Your task to perform on an android device: turn vacation reply on in the gmail app Image 0: 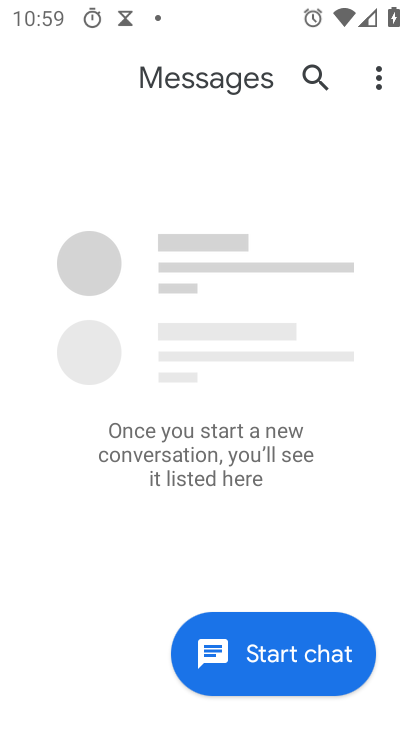
Step 0: press back button
Your task to perform on an android device: turn vacation reply on in the gmail app Image 1: 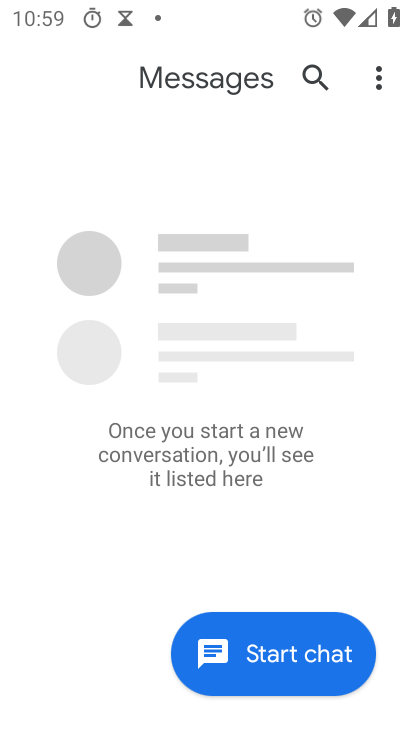
Step 1: press back button
Your task to perform on an android device: turn vacation reply on in the gmail app Image 2: 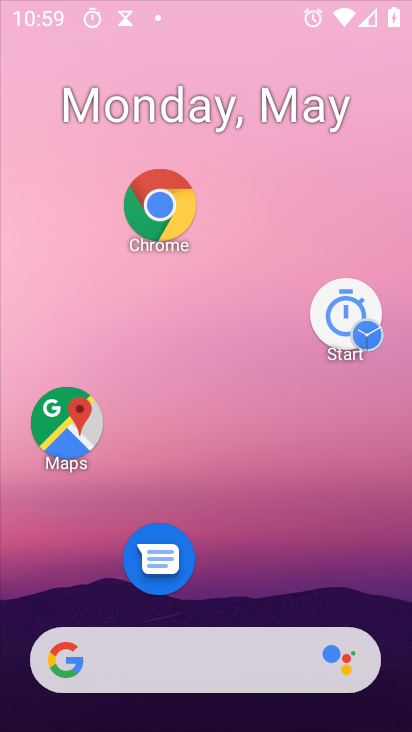
Step 2: press back button
Your task to perform on an android device: turn vacation reply on in the gmail app Image 3: 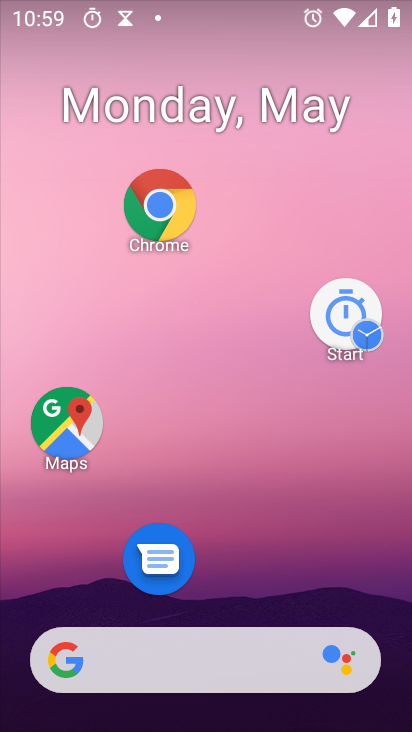
Step 3: drag from (218, 677) to (118, 171)
Your task to perform on an android device: turn vacation reply on in the gmail app Image 4: 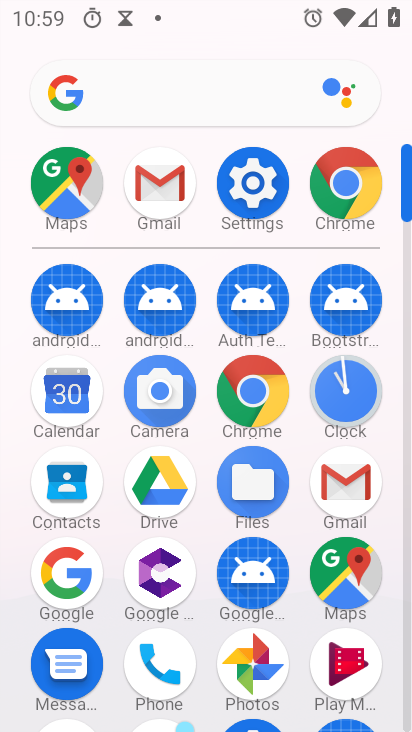
Step 4: click (166, 189)
Your task to perform on an android device: turn vacation reply on in the gmail app Image 5: 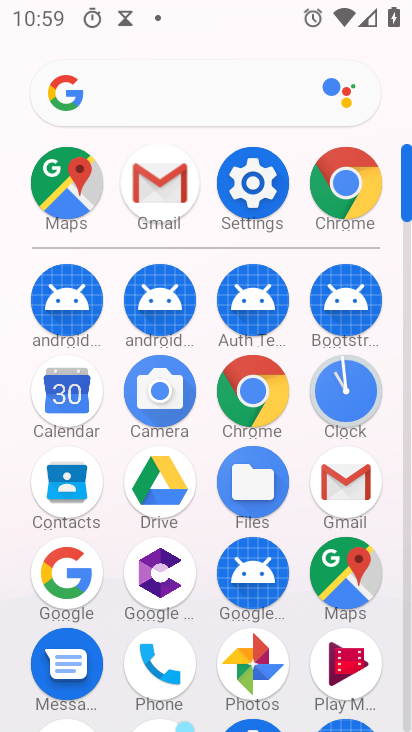
Step 5: click (166, 189)
Your task to perform on an android device: turn vacation reply on in the gmail app Image 6: 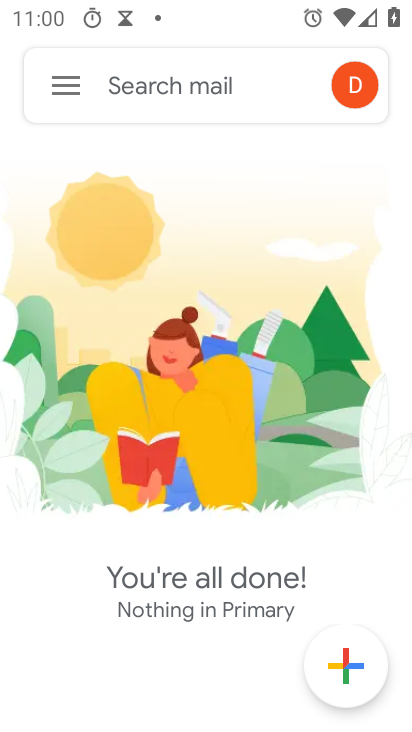
Step 6: press back button
Your task to perform on an android device: turn vacation reply on in the gmail app Image 7: 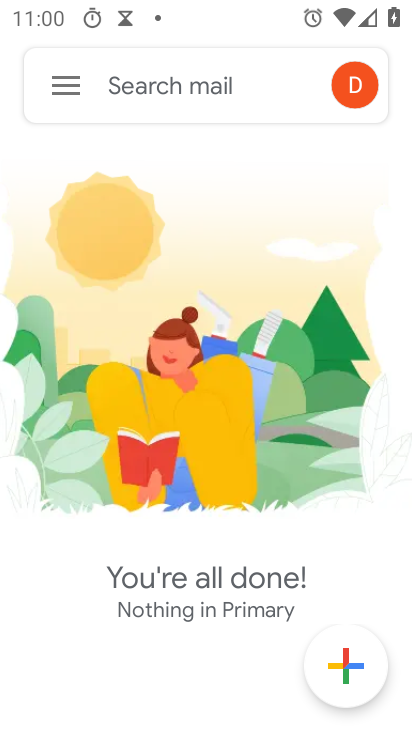
Step 7: press back button
Your task to perform on an android device: turn vacation reply on in the gmail app Image 8: 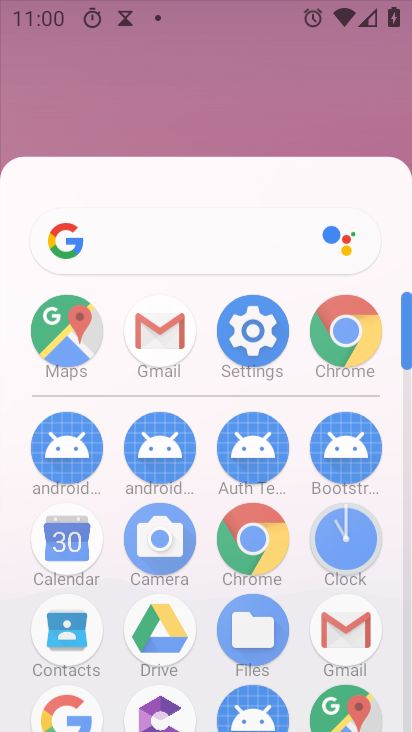
Step 8: press back button
Your task to perform on an android device: turn vacation reply on in the gmail app Image 9: 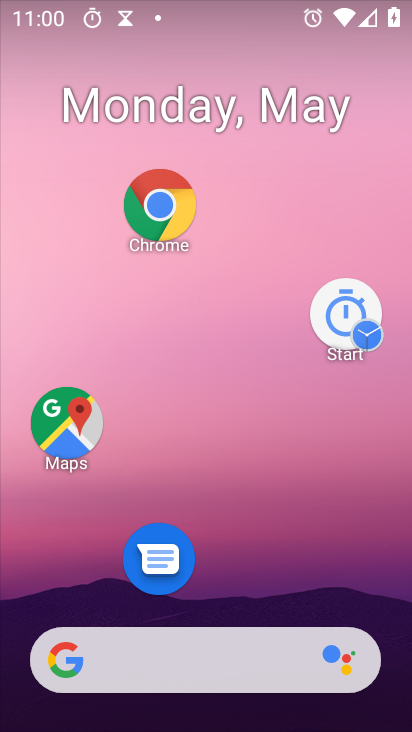
Step 9: drag from (251, 647) to (166, 13)
Your task to perform on an android device: turn vacation reply on in the gmail app Image 10: 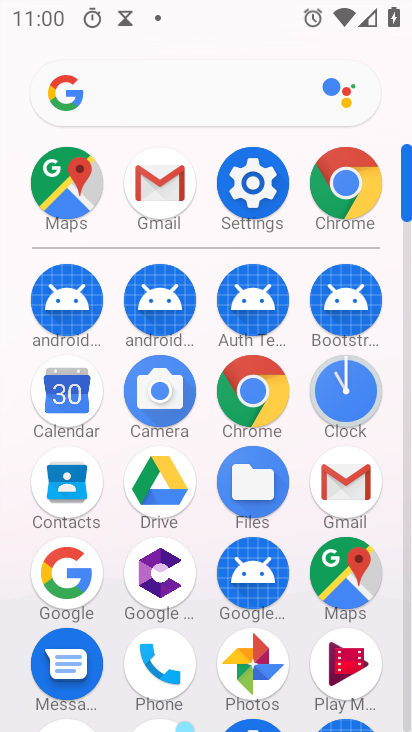
Step 10: click (340, 480)
Your task to perform on an android device: turn vacation reply on in the gmail app Image 11: 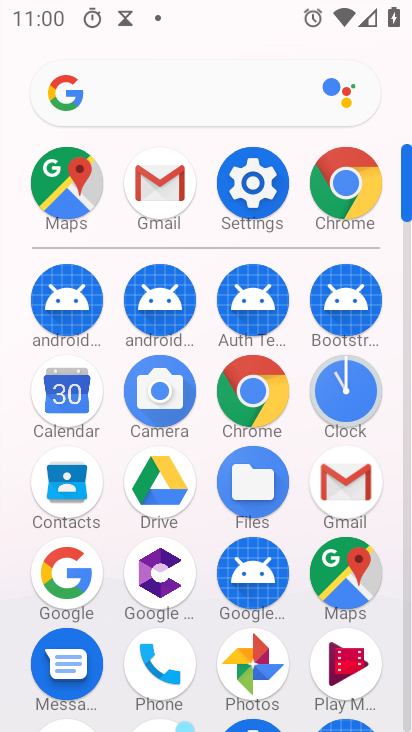
Step 11: click (343, 480)
Your task to perform on an android device: turn vacation reply on in the gmail app Image 12: 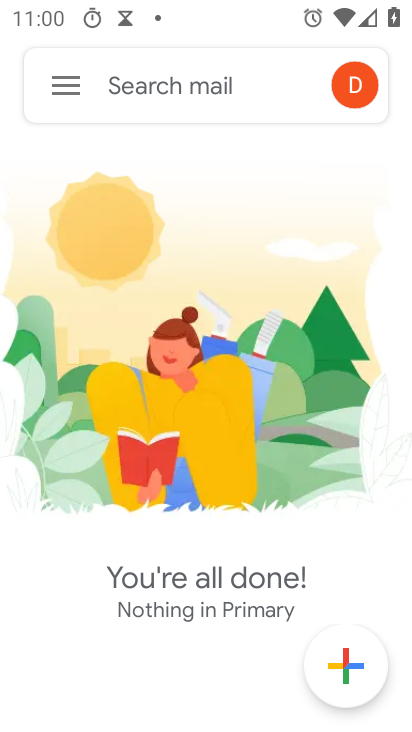
Step 12: click (76, 89)
Your task to perform on an android device: turn vacation reply on in the gmail app Image 13: 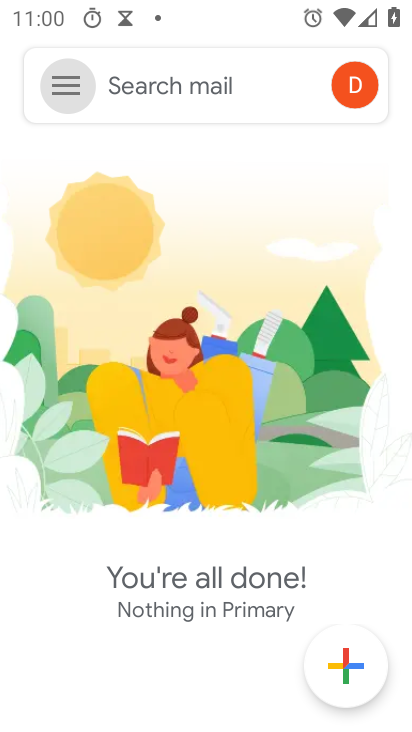
Step 13: click (70, 94)
Your task to perform on an android device: turn vacation reply on in the gmail app Image 14: 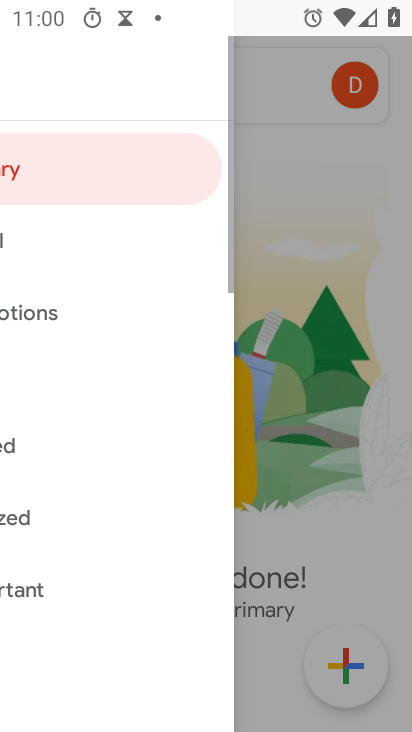
Step 14: click (70, 94)
Your task to perform on an android device: turn vacation reply on in the gmail app Image 15: 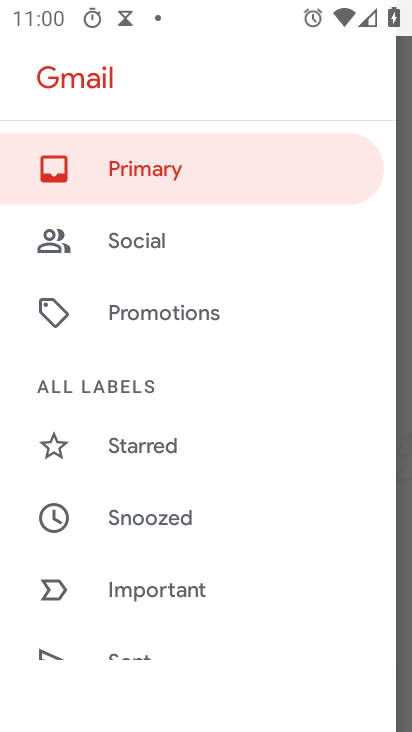
Step 15: drag from (204, 442) to (177, 75)
Your task to perform on an android device: turn vacation reply on in the gmail app Image 16: 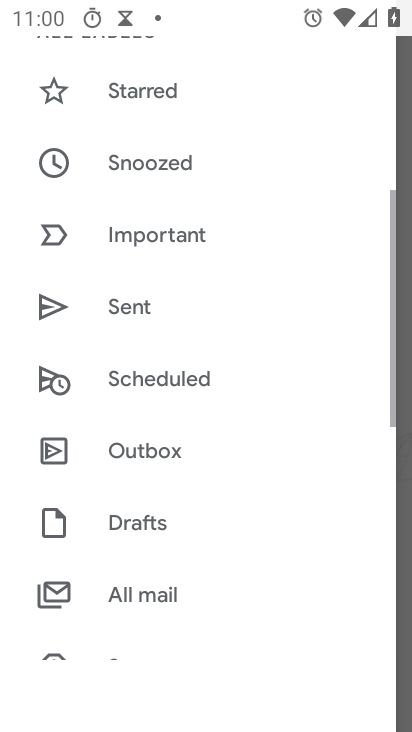
Step 16: drag from (222, 422) to (223, 176)
Your task to perform on an android device: turn vacation reply on in the gmail app Image 17: 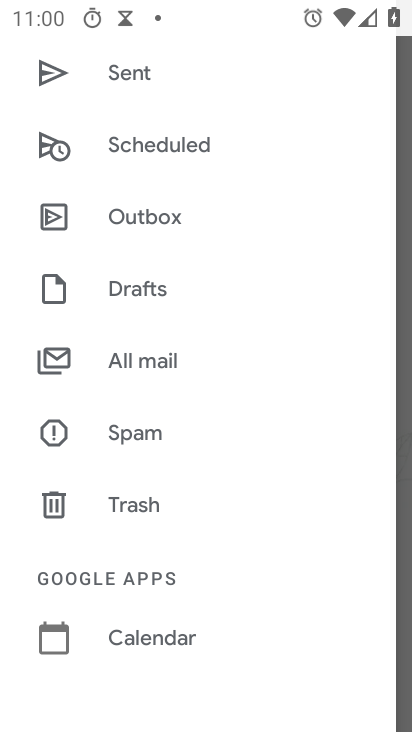
Step 17: drag from (163, 497) to (129, 243)
Your task to perform on an android device: turn vacation reply on in the gmail app Image 18: 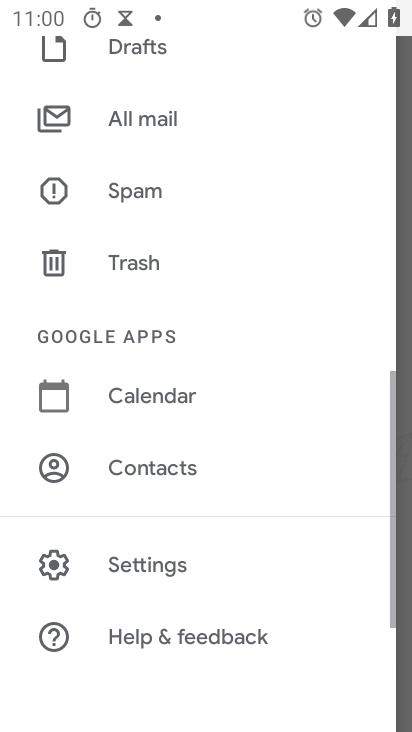
Step 18: drag from (185, 421) to (193, 87)
Your task to perform on an android device: turn vacation reply on in the gmail app Image 19: 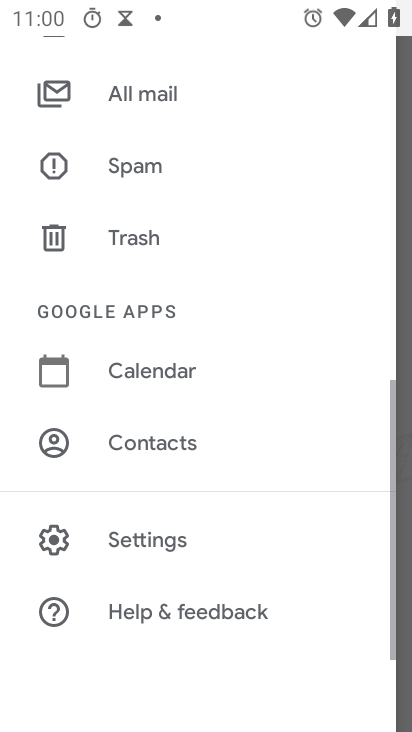
Step 19: drag from (223, 461) to (223, 171)
Your task to perform on an android device: turn vacation reply on in the gmail app Image 20: 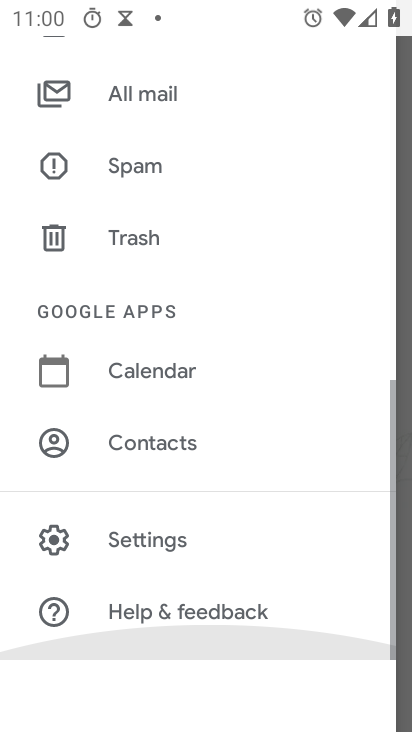
Step 20: drag from (190, 403) to (220, 124)
Your task to perform on an android device: turn vacation reply on in the gmail app Image 21: 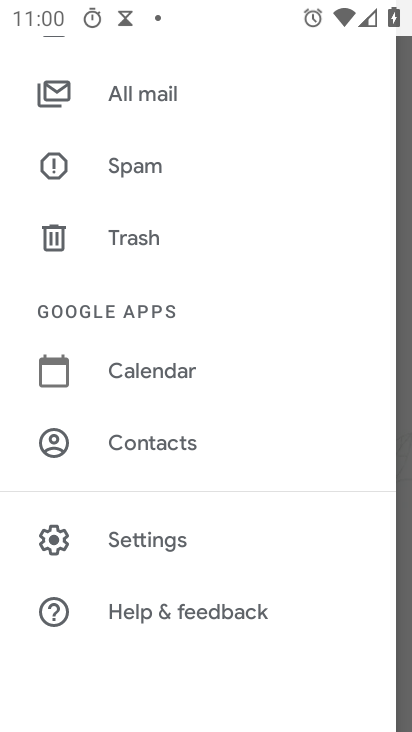
Step 21: click (150, 526)
Your task to perform on an android device: turn vacation reply on in the gmail app Image 22: 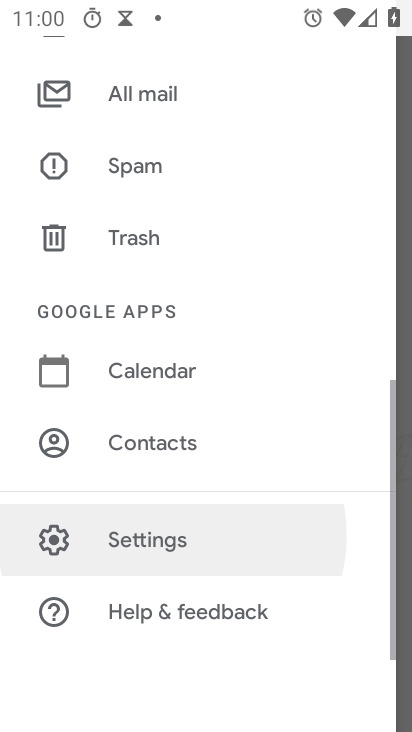
Step 22: click (149, 530)
Your task to perform on an android device: turn vacation reply on in the gmail app Image 23: 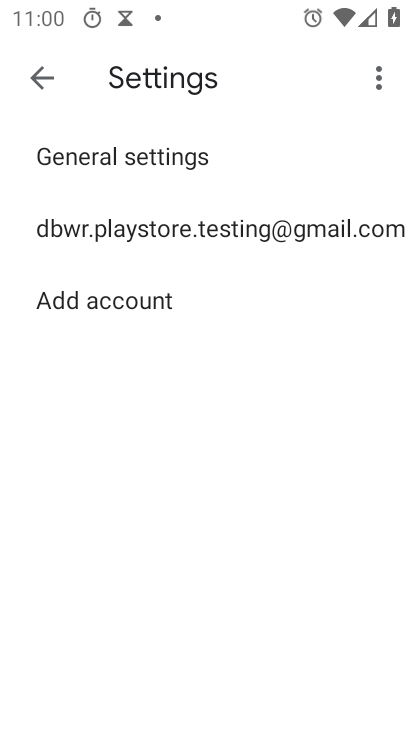
Step 23: click (140, 217)
Your task to perform on an android device: turn vacation reply on in the gmail app Image 24: 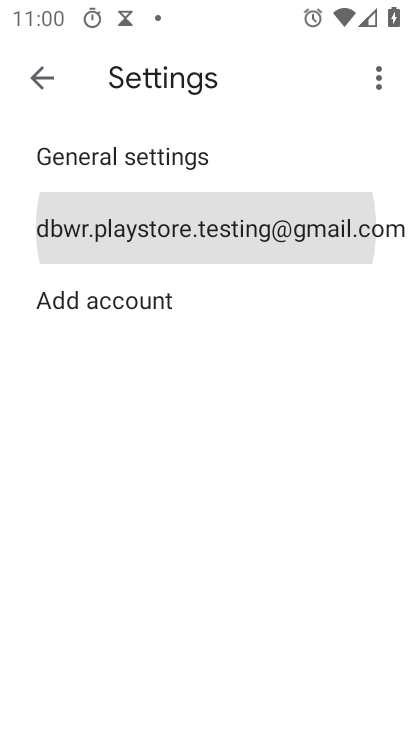
Step 24: click (140, 217)
Your task to perform on an android device: turn vacation reply on in the gmail app Image 25: 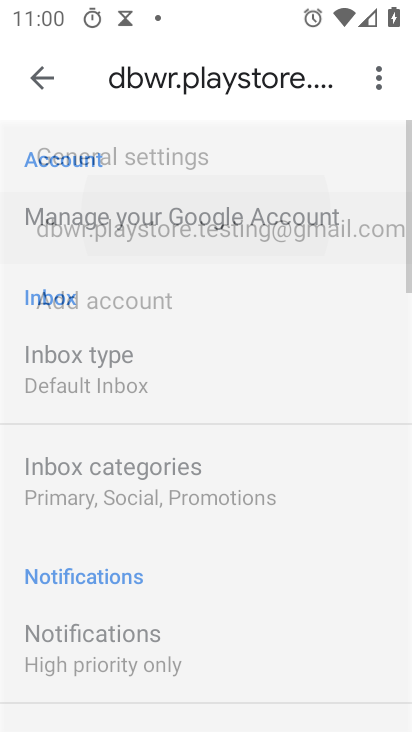
Step 25: click (141, 219)
Your task to perform on an android device: turn vacation reply on in the gmail app Image 26: 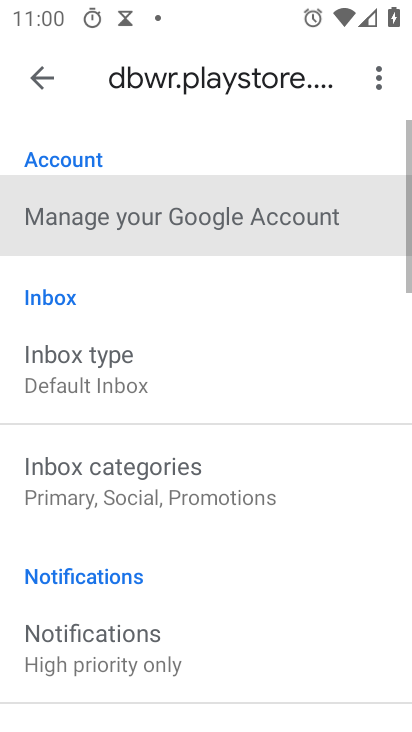
Step 26: click (142, 219)
Your task to perform on an android device: turn vacation reply on in the gmail app Image 27: 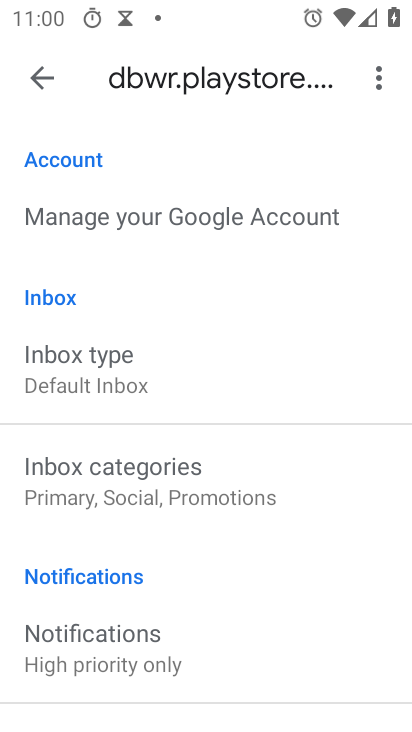
Step 27: drag from (102, 600) to (108, 228)
Your task to perform on an android device: turn vacation reply on in the gmail app Image 28: 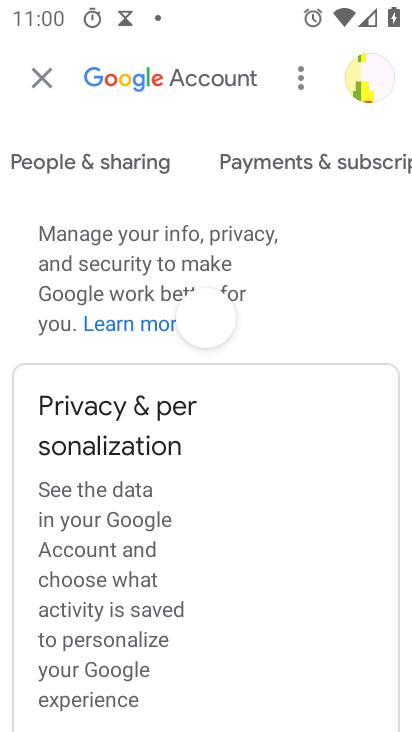
Step 28: drag from (132, 426) to (155, 80)
Your task to perform on an android device: turn vacation reply on in the gmail app Image 29: 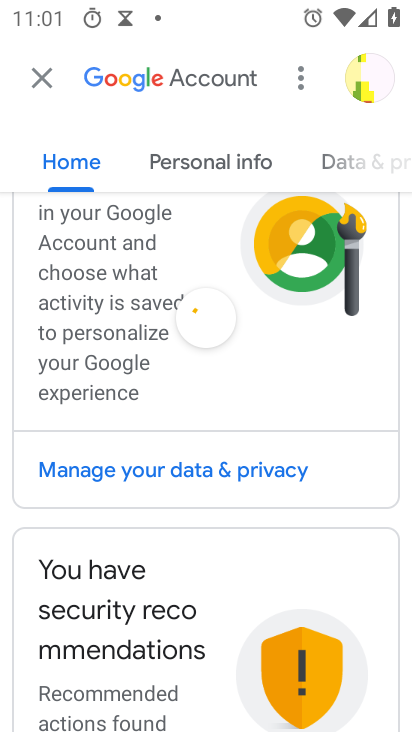
Step 29: click (42, 86)
Your task to perform on an android device: turn vacation reply on in the gmail app Image 30: 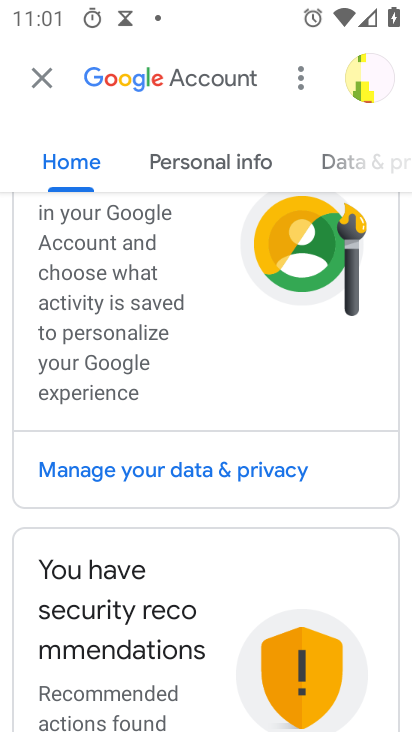
Step 30: click (38, 78)
Your task to perform on an android device: turn vacation reply on in the gmail app Image 31: 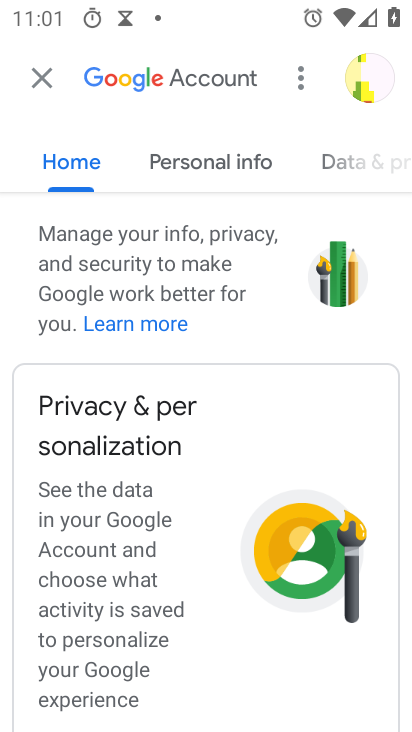
Step 31: click (38, 79)
Your task to perform on an android device: turn vacation reply on in the gmail app Image 32: 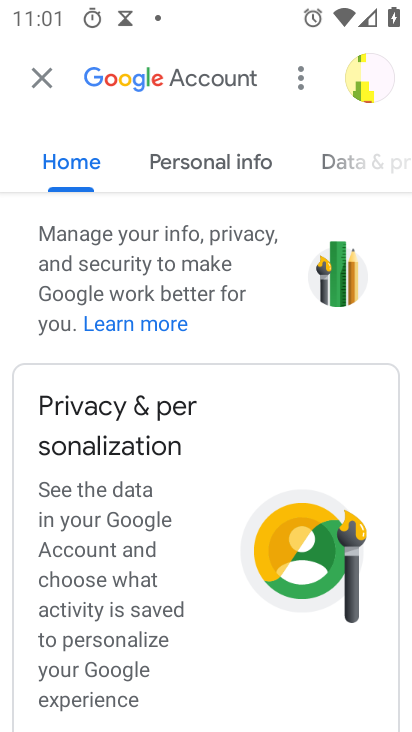
Step 32: click (39, 68)
Your task to perform on an android device: turn vacation reply on in the gmail app Image 33: 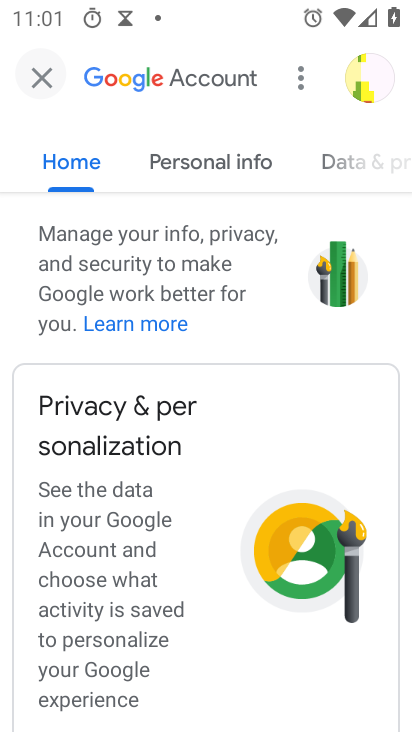
Step 33: click (40, 67)
Your task to perform on an android device: turn vacation reply on in the gmail app Image 34: 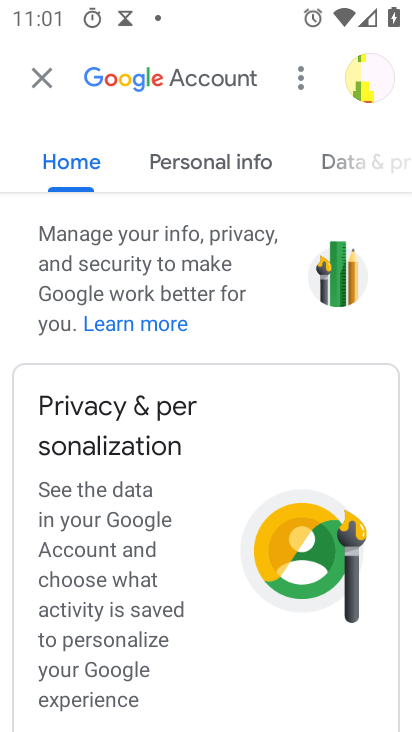
Step 34: click (48, 83)
Your task to perform on an android device: turn vacation reply on in the gmail app Image 35: 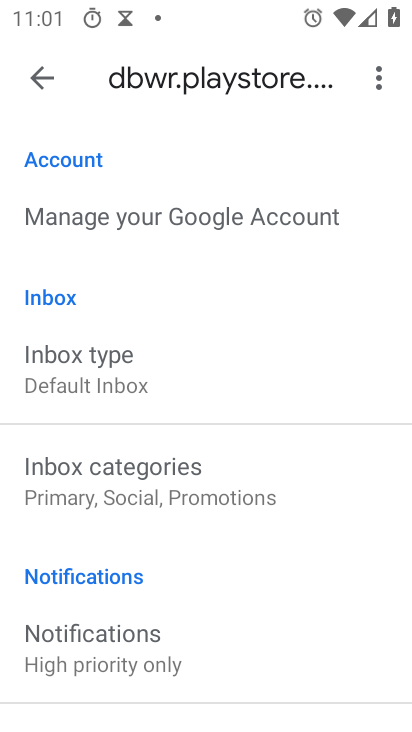
Step 35: drag from (131, 622) to (87, 225)
Your task to perform on an android device: turn vacation reply on in the gmail app Image 36: 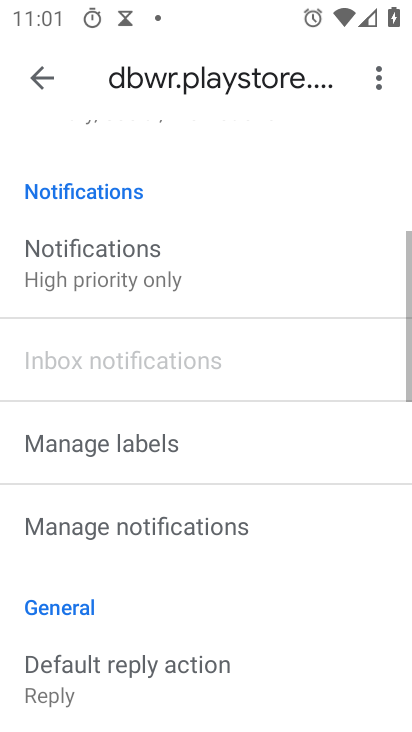
Step 36: drag from (167, 470) to (157, 98)
Your task to perform on an android device: turn vacation reply on in the gmail app Image 37: 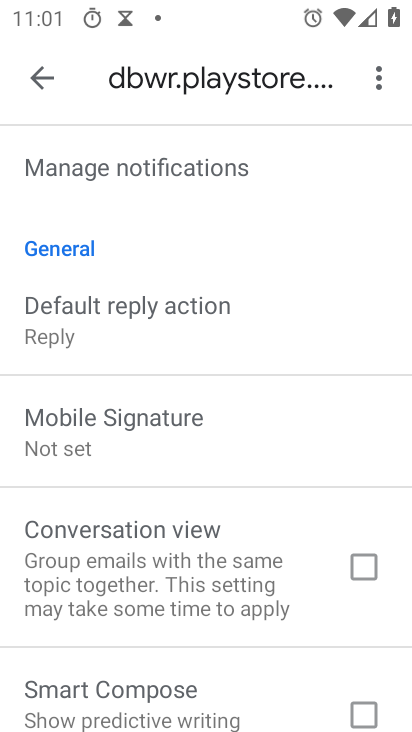
Step 37: drag from (152, 631) to (127, 275)
Your task to perform on an android device: turn vacation reply on in the gmail app Image 38: 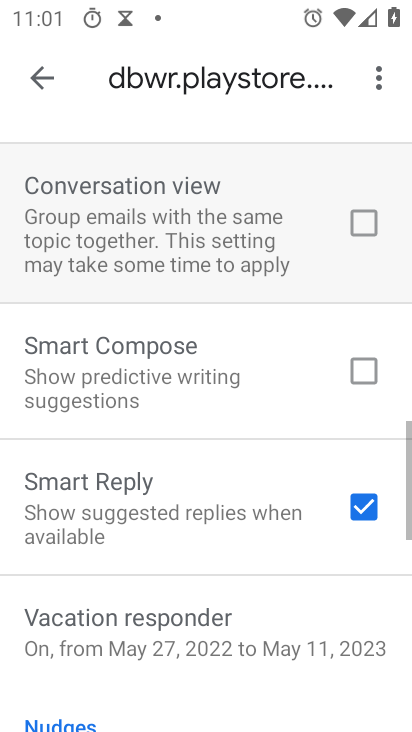
Step 38: drag from (159, 490) to (123, 210)
Your task to perform on an android device: turn vacation reply on in the gmail app Image 39: 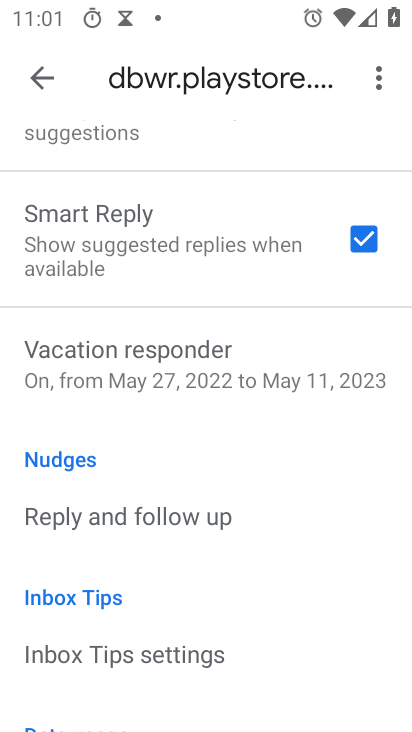
Step 39: drag from (131, 547) to (182, 190)
Your task to perform on an android device: turn vacation reply on in the gmail app Image 40: 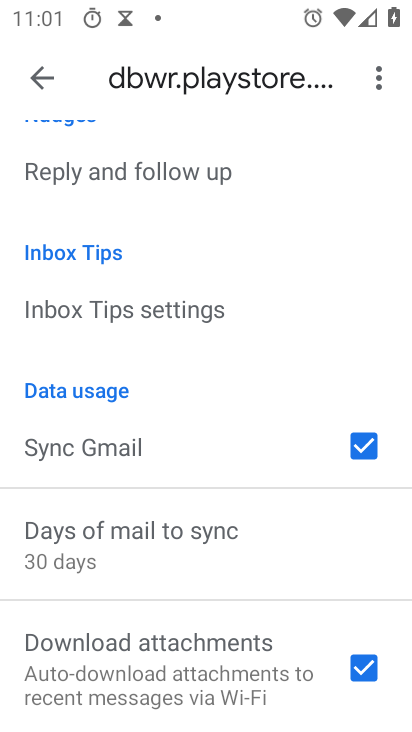
Step 40: drag from (137, 210) to (159, 390)
Your task to perform on an android device: turn vacation reply on in the gmail app Image 41: 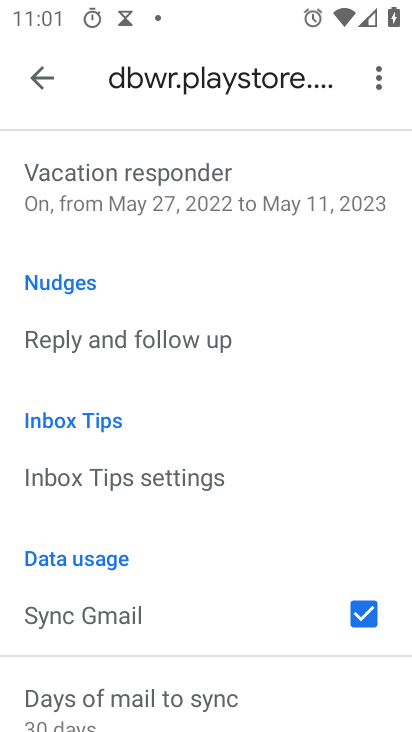
Step 41: click (199, 182)
Your task to perform on an android device: turn vacation reply on in the gmail app Image 42: 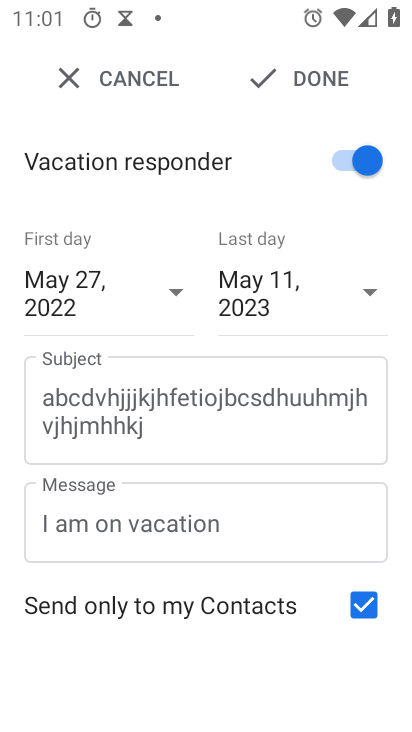
Step 42: task complete